Your task to perform on an android device: choose inbox layout in the gmail app Image 0: 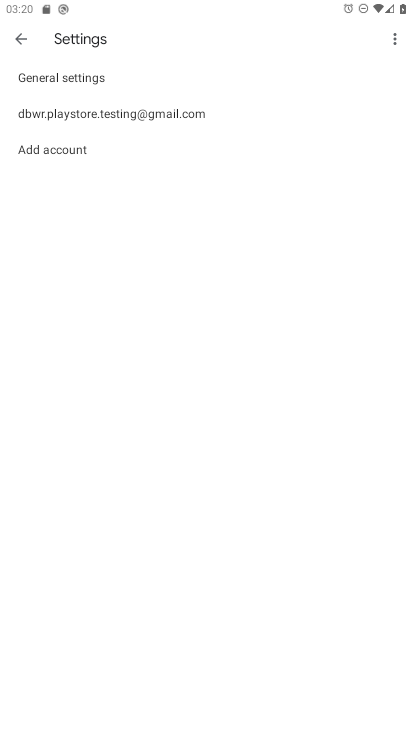
Step 0: press home button
Your task to perform on an android device: choose inbox layout in the gmail app Image 1: 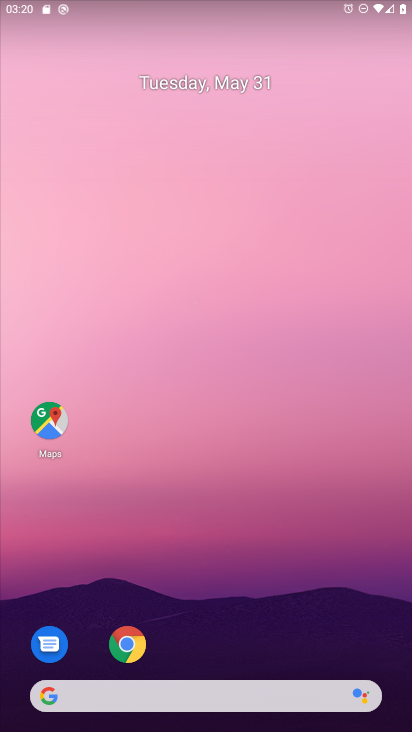
Step 1: drag from (288, 626) to (221, 119)
Your task to perform on an android device: choose inbox layout in the gmail app Image 2: 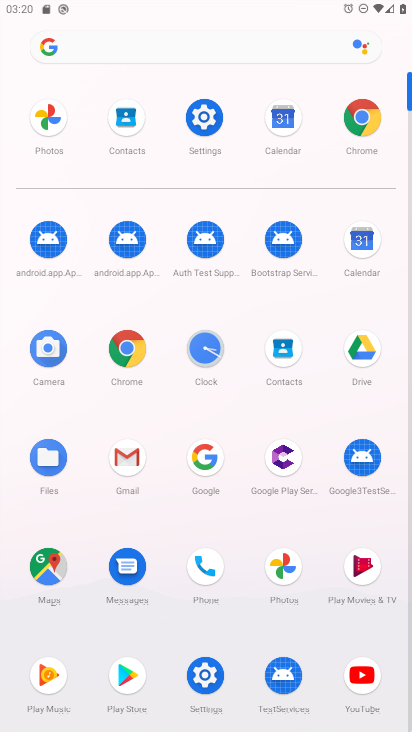
Step 2: click (130, 452)
Your task to perform on an android device: choose inbox layout in the gmail app Image 3: 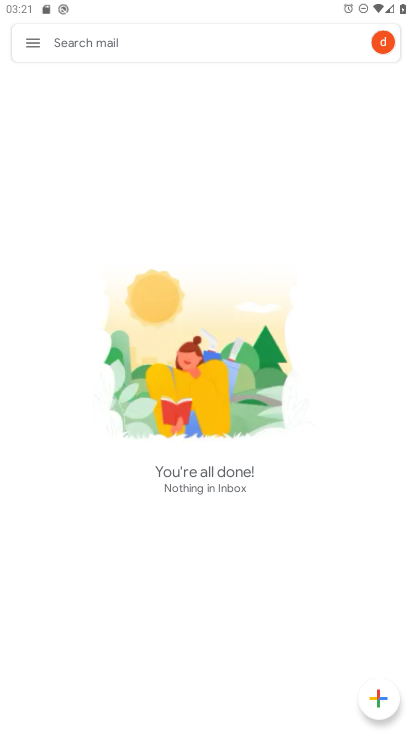
Step 3: click (43, 42)
Your task to perform on an android device: choose inbox layout in the gmail app Image 4: 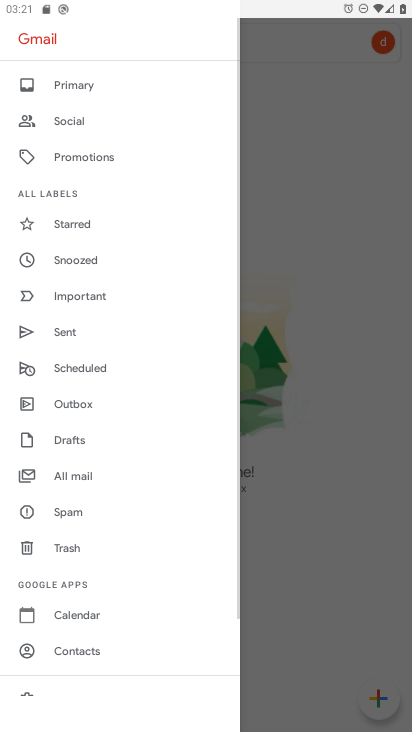
Step 4: drag from (87, 607) to (128, 213)
Your task to perform on an android device: choose inbox layout in the gmail app Image 5: 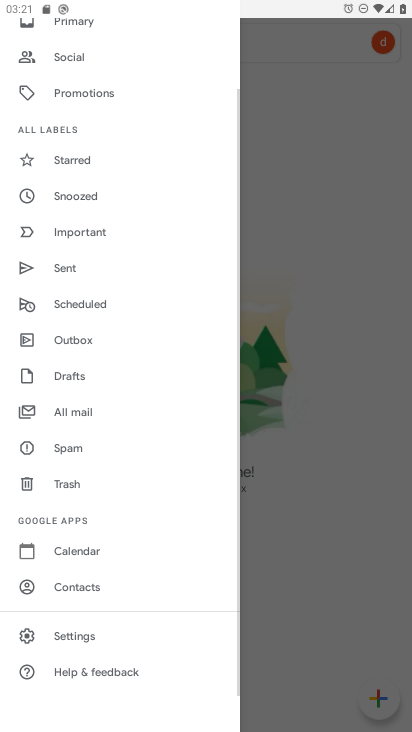
Step 5: click (76, 633)
Your task to perform on an android device: choose inbox layout in the gmail app Image 6: 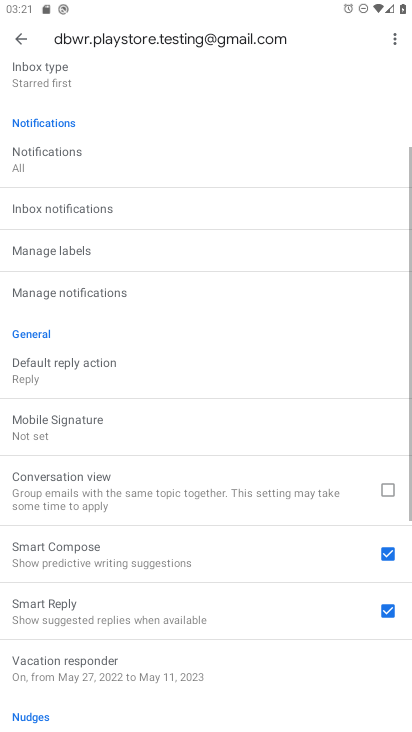
Step 6: drag from (118, 158) to (90, 424)
Your task to perform on an android device: choose inbox layout in the gmail app Image 7: 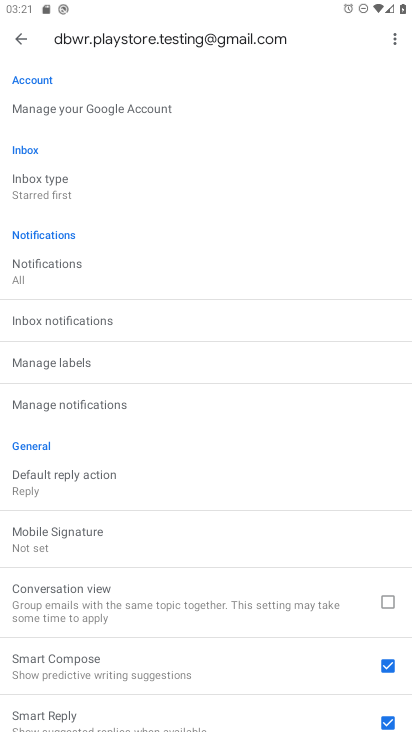
Step 7: click (69, 180)
Your task to perform on an android device: choose inbox layout in the gmail app Image 8: 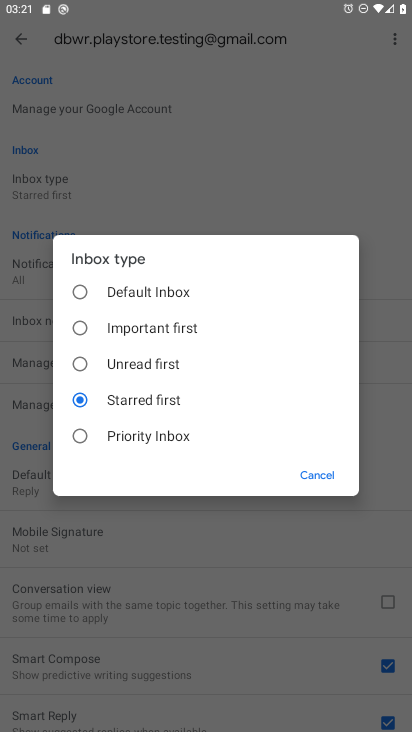
Step 8: task complete